Your task to perform on an android device: check data usage Image 0: 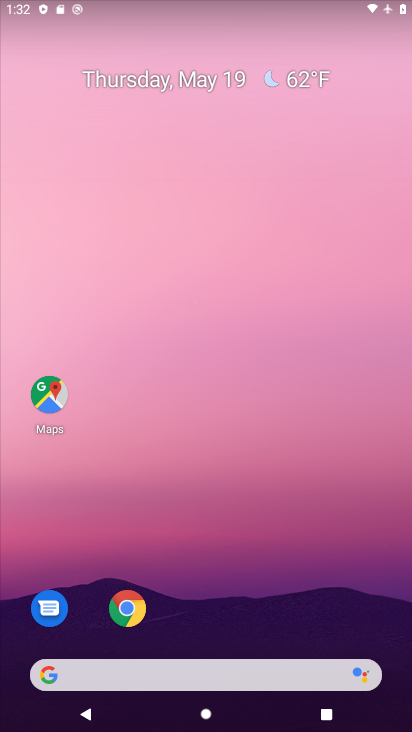
Step 0: drag from (307, 598) to (239, 166)
Your task to perform on an android device: check data usage Image 1: 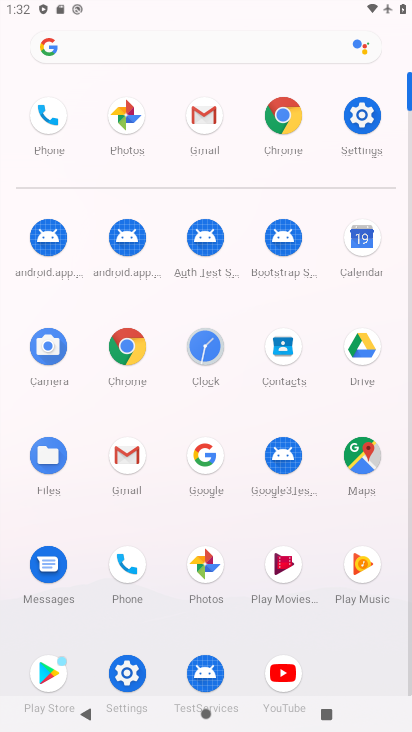
Step 1: click (356, 100)
Your task to perform on an android device: check data usage Image 2: 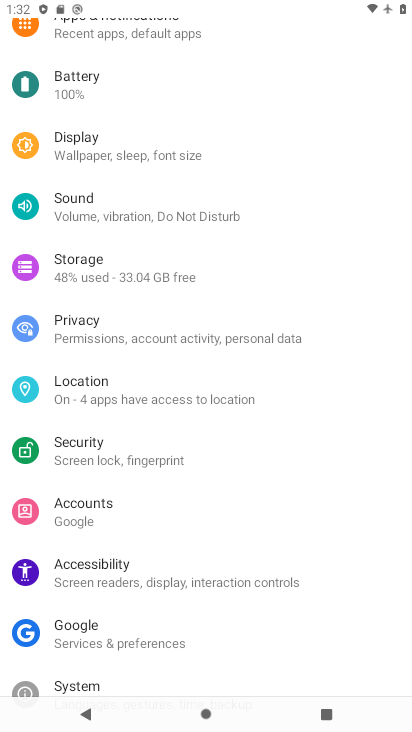
Step 2: drag from (191, 165) to (61, 596)
Your task to perform on an android device: check data usage Image 3: 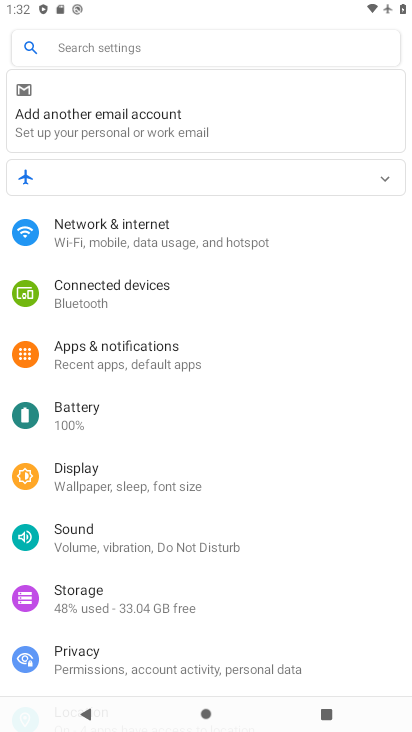
Step 3: click (130, 218)
Your task to perform on an android device: check data usage Image 4: 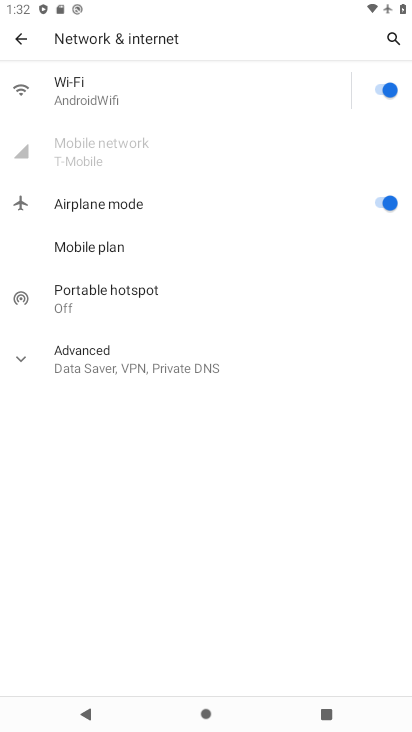
Step 4: click (380, 203)
Your task to perform on an android device: check data usage Image 5: 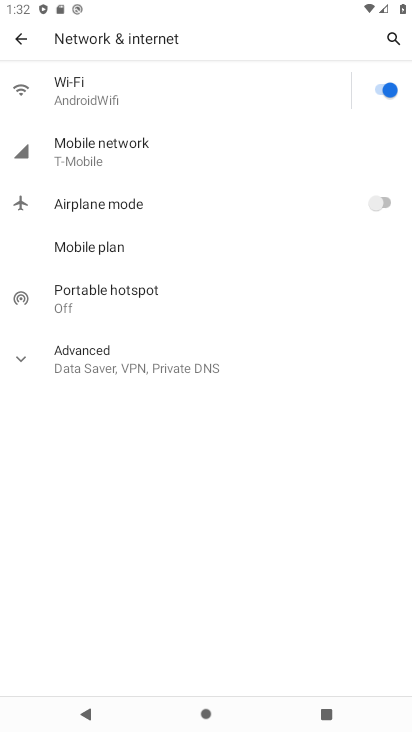
Step 5: click (271, 157)
Your task to perform on an android device: check data usage Image 6: 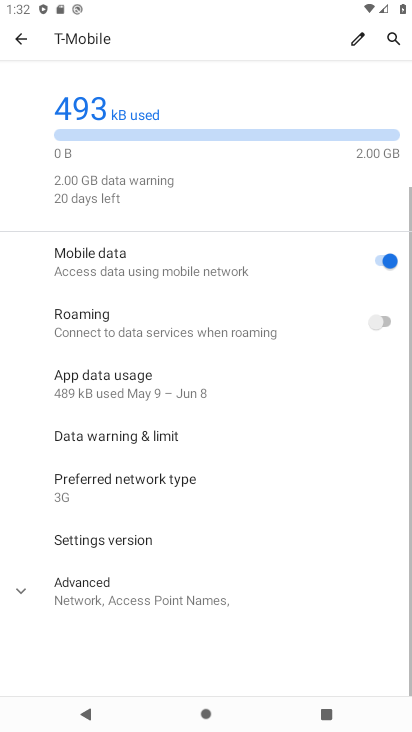
Step 6: task complete